Your task to perform on an android device: Is it going to rain tomorrow? Image 0: 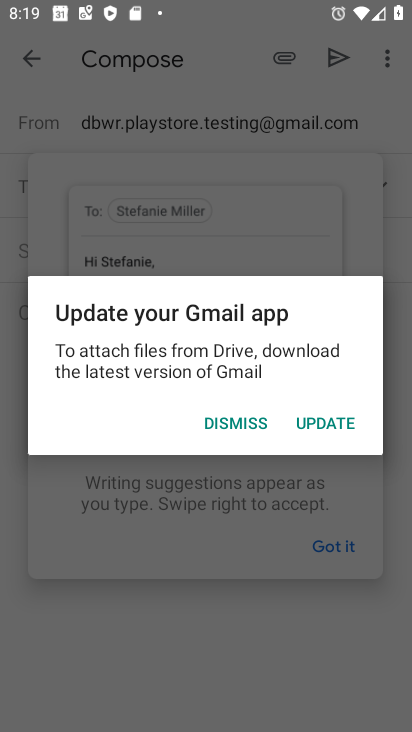
Step 0: press home button
Your task to perform on an android device: Is it going to rain tomorrow? Image 1: 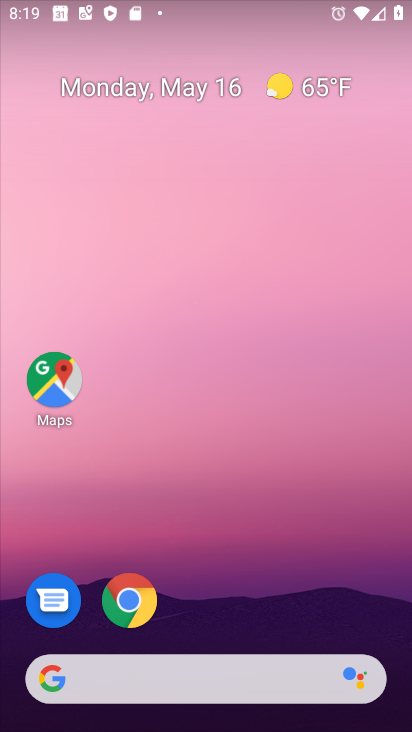
Step 1: drag from (201, 628) to (199, 60)
Your task to perform on an android device: Is it going to rain tomorrow? Image 2: 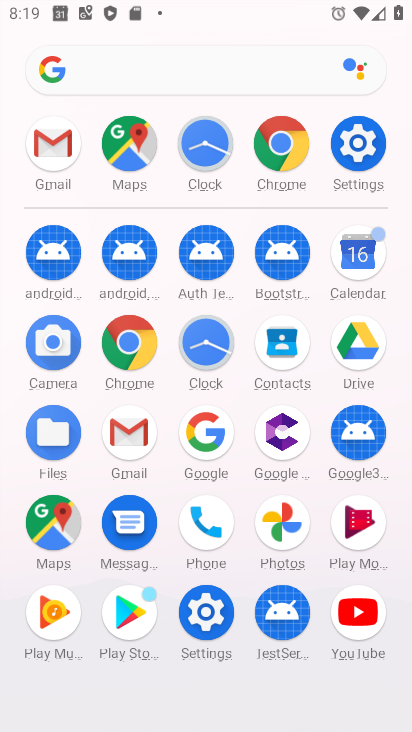
Step 2: click (191, 70)
Your task to perform on an android device: Is it going to rain tomorrow? Image 3: 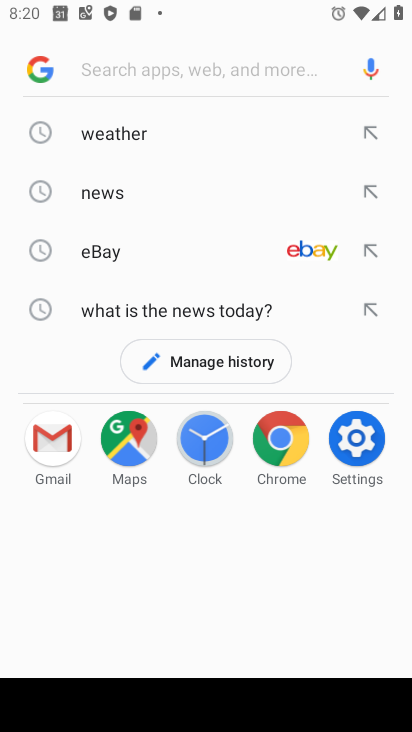
Step 3: type "rain tomorrow"
Your task to perform on an android device: Is it going to rain tomorrow? Image 4: 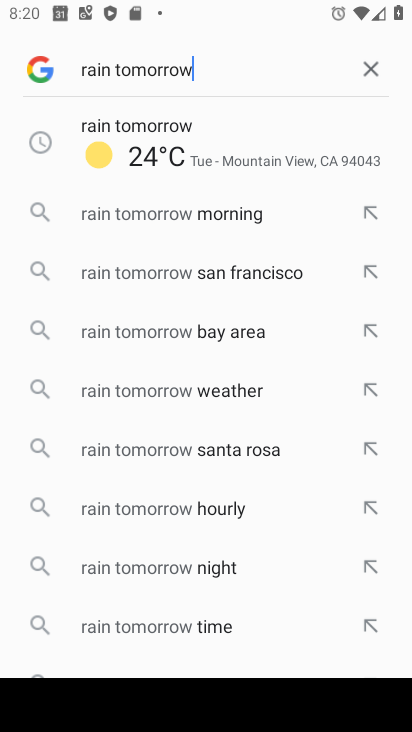
Step 4: click (205, 142)
Your task to perform on an android device: Is it going to rain tomorrow? Image 5: 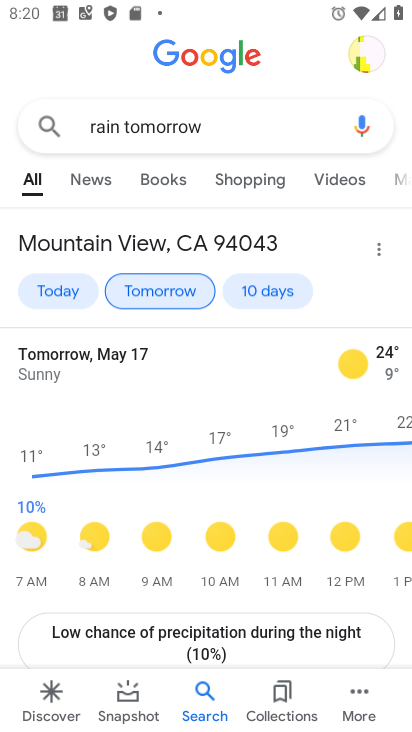
Step 5: task complete